Your task to perform on an android device: Search for sushi restaurants on Maps Image 0: 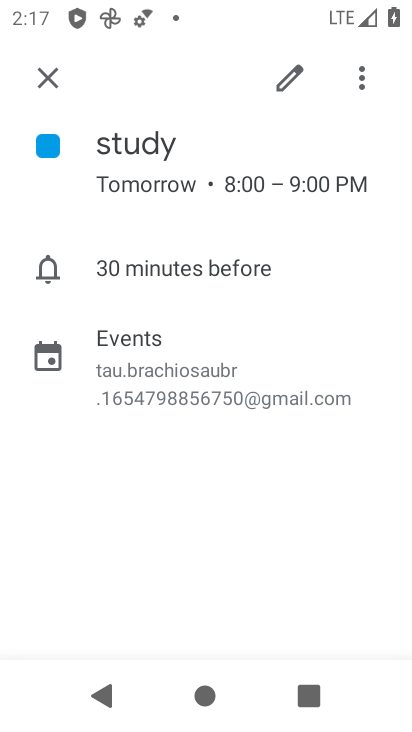
Step 0: press home button
Your task to perform on an android device: Search for sushi restaurants on Maps Image 1: 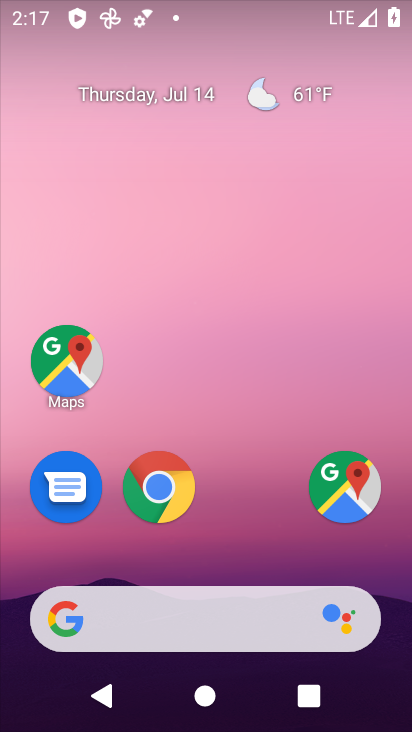
Step 1: drag from (271, 551) to (259, 146)
Your task to perform on an android device: Search for sushi restaurants on Maps Image 2: 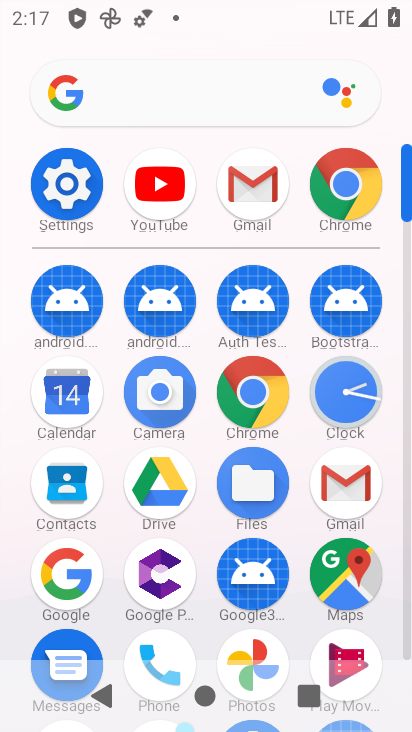
Step 2: click (350, 576)
Your task to perform on an android device: Search for sushi restaurants on Maps Image 3: 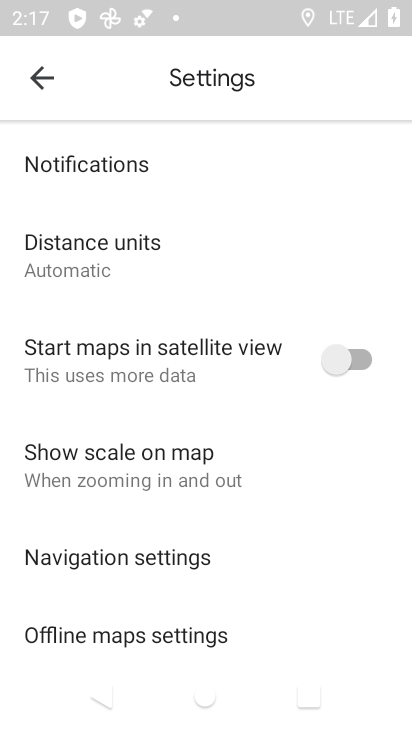
Step 3: press back button
Your task to perform on an android device: Search for sushi restaurants on Maps Image 4: 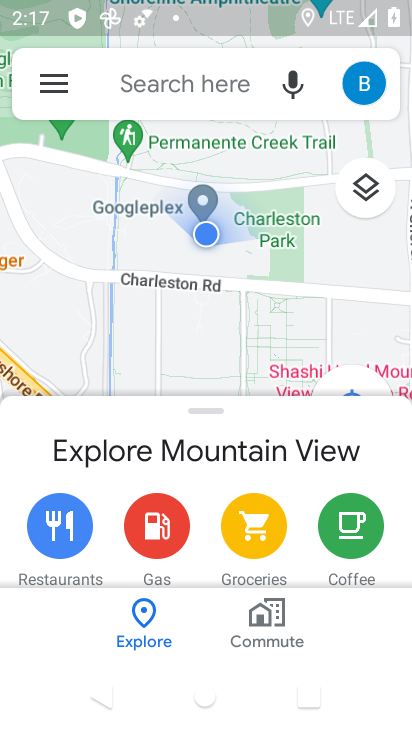
Step 4: click (203, 99)
Your task to perform on an android device: Search for sushi restaurants on Maps Image 5: 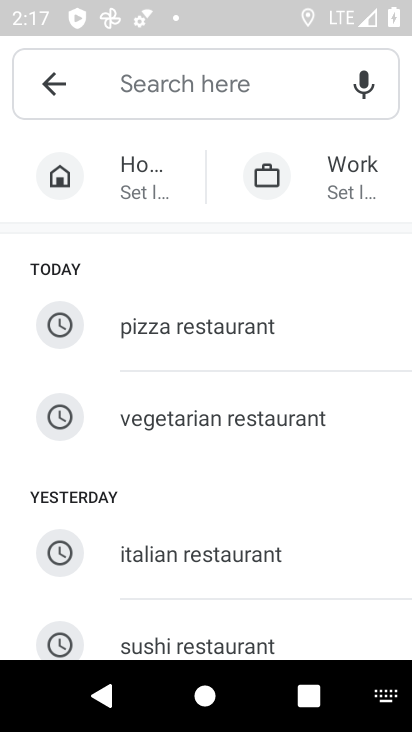
Step 5: type "sushi restaurants"
Your task to perform on an android device: Search for sushi restaurants on Maps Image 6: 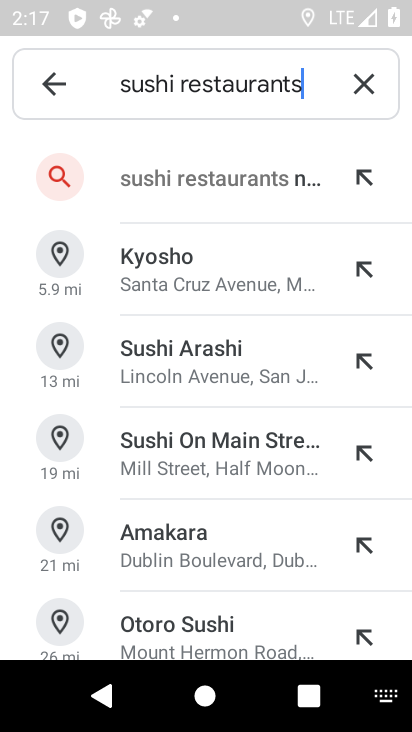
Step 6: click (223, 178)
Your task to perform on an android device: Search for sushi restaurants on Maps Image 7: 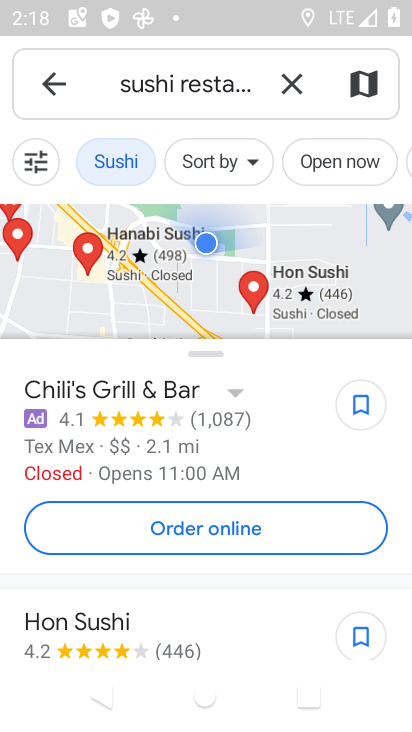
Step 7: task complete